Your task to perform on an android device: turn on bluetooth scan Image 0: 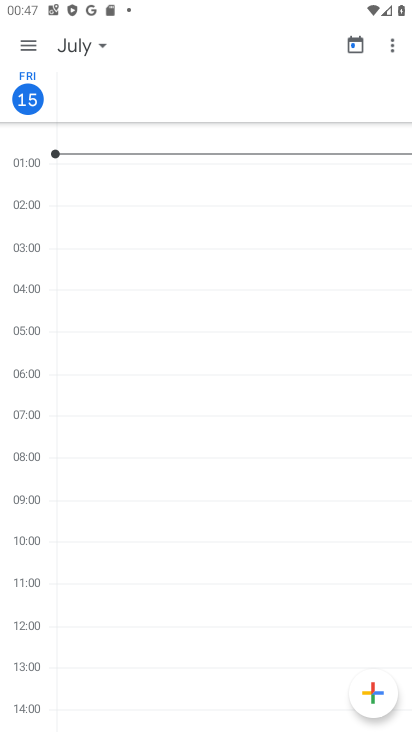
Step 0: press home button
Your task to perform on an android device: turn on bluetooth scan Image 1: 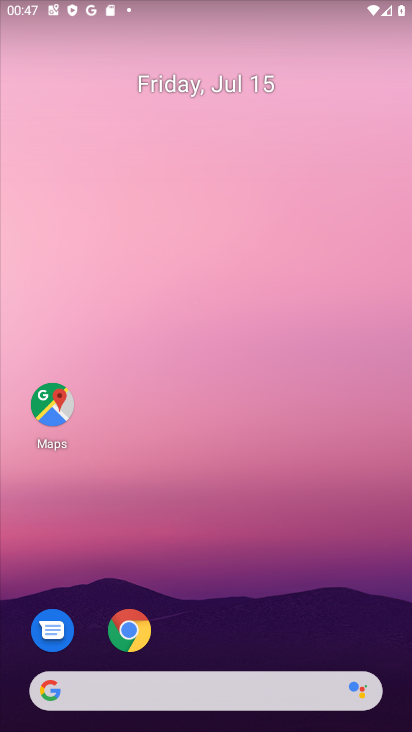
Step 1: drag from (270, 644) to (266, 310)
Your task to perform on an android device: turn on bluetooth scan Image 2: 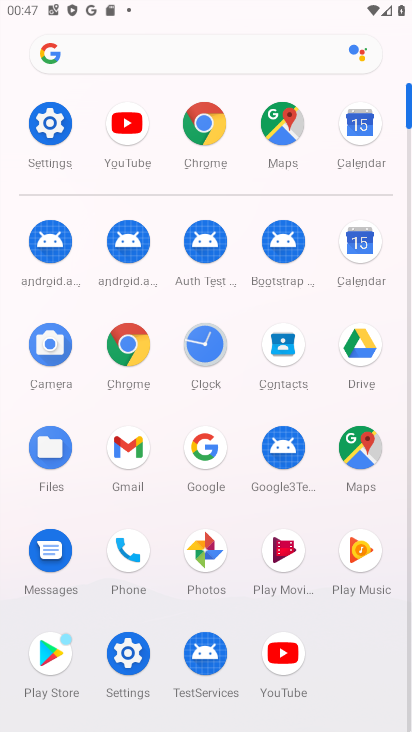
Step 2: click (56, 139)
Your task to perform on an android device: turn on bluetooth scan Image 3: 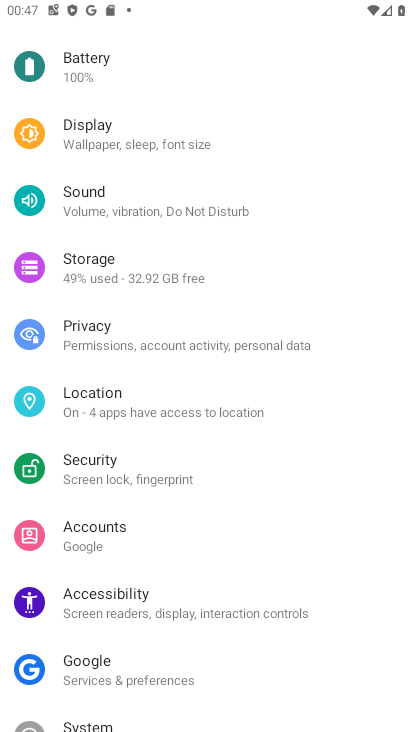
Step 3: drag from (126, 666) to (136, 516)
Your task to perform on an android device: turn on bluetooth scan Image 4: 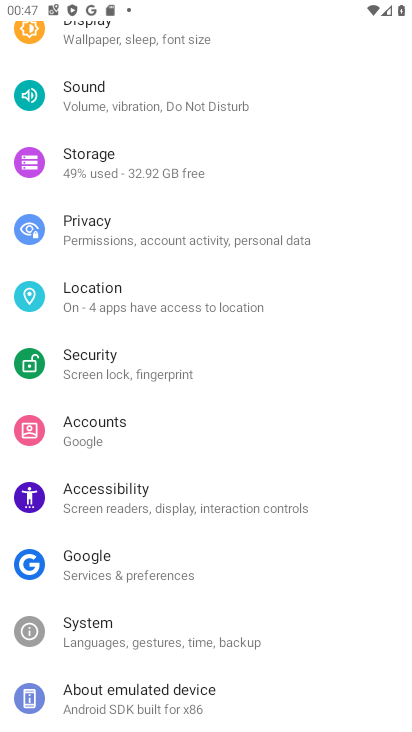
Step 4: click (157, 302)
Your task to perform on an android device: turn on bluetooth scan Image 5: 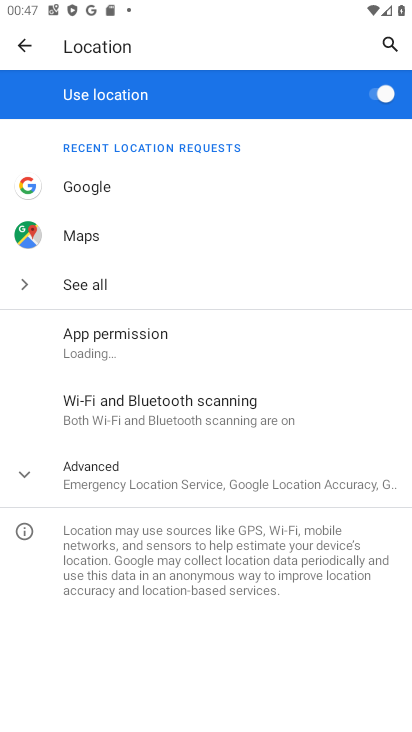
Step 5: click (125, 454)
Your task to perform on an android device: turn on bluetooth scan Image 6: 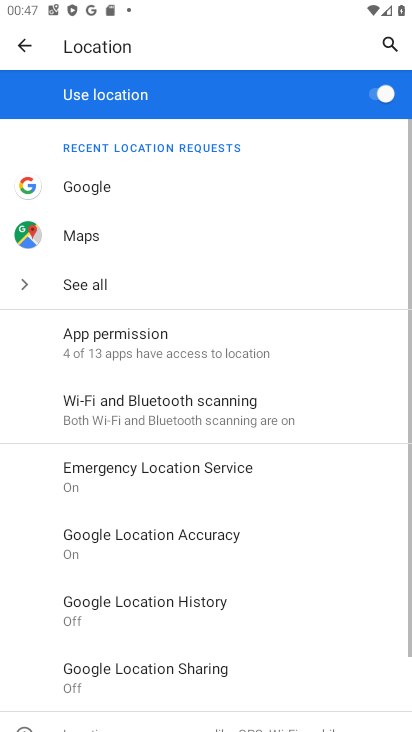
Step 6: click (163, 397)
Your task to perform on an android device: turn on bluetooth scan Image 7: 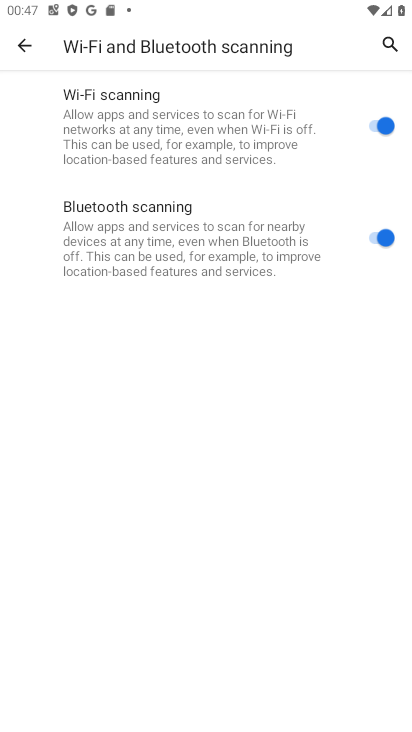
Step 7: task complete